Your task to perform on an android device: turn off location Image 0: 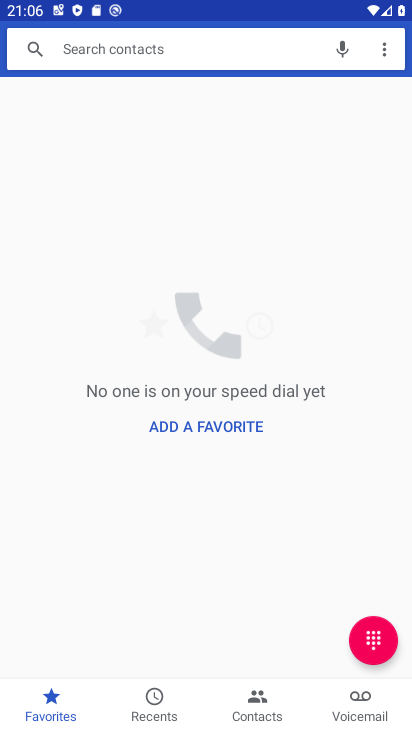
Step 0: press home button
Your task to perform on an android device: turn off location Image 1: 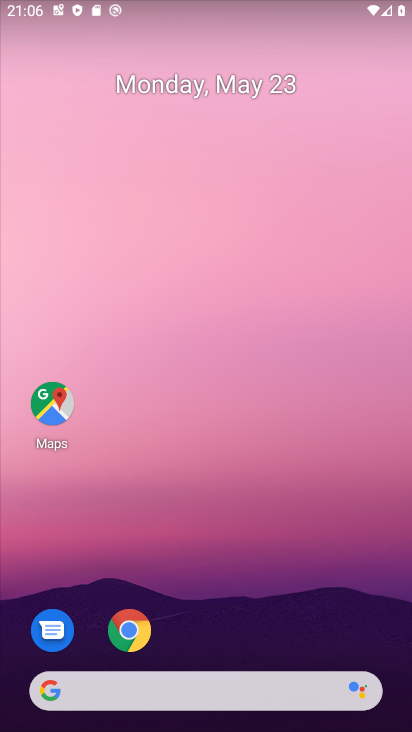
Step 1: drag from (209, 678) to (205, 355)
Your task to perform on an android device: turn off location Image 2: 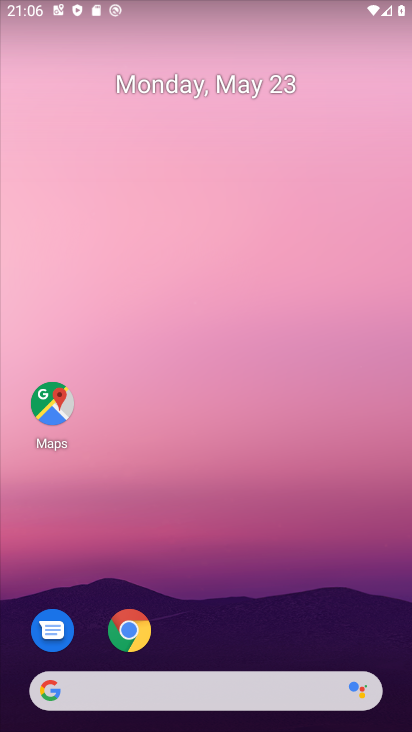
Step 2: drag from (226, 656) to (226, 314)
Your task to perform on an android device: turn off location Image 3: 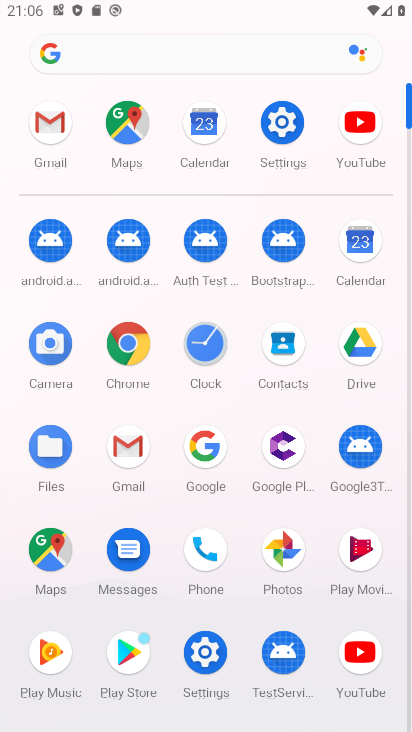
Step 3: click (284, 116)
Your task to perform on an android device: turn off location Image 4: 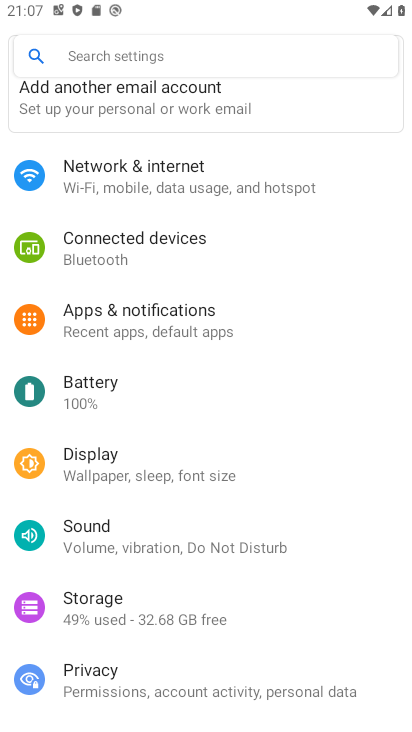
Step 4: drag from (118, 683) to (118, 262)
Your task to perform on an android device: turn off location Image 5: 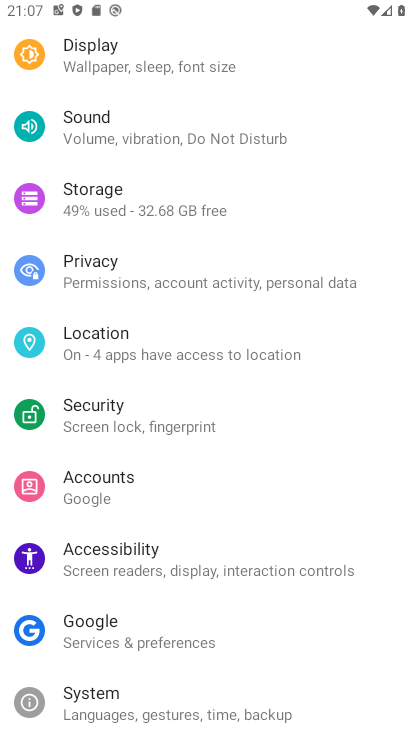
Step 5: click (120, 356)
Your task to perform on an android device: turn off location Image 6: 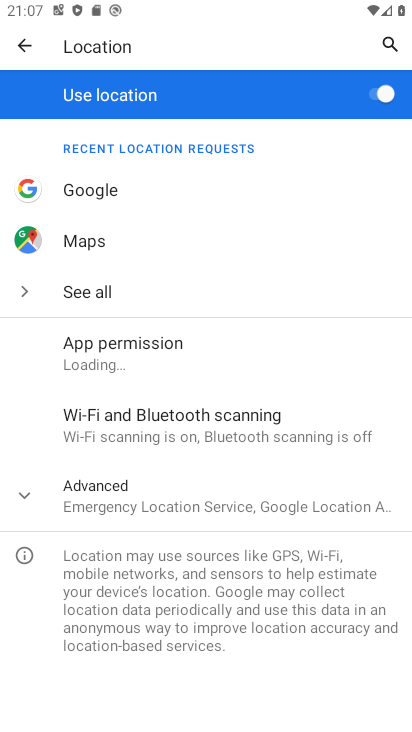
Step 6: click (372, 98)
Your task to perform on an android device: turn off location Image 7: 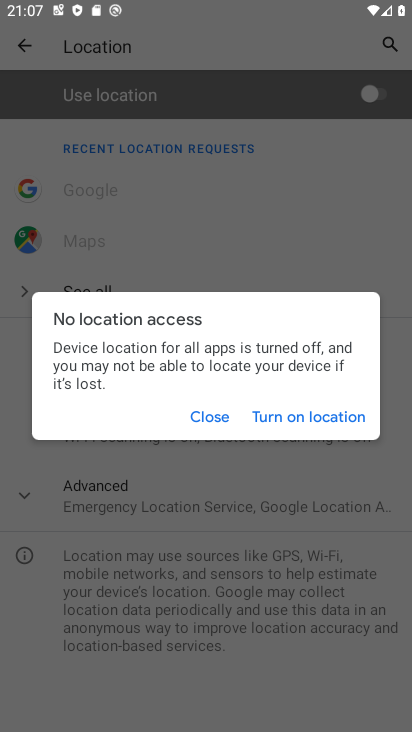
Step 7: task complete